Your task to perform on an android device: Search for flights from Buenos aires to Helsinki Image 0: 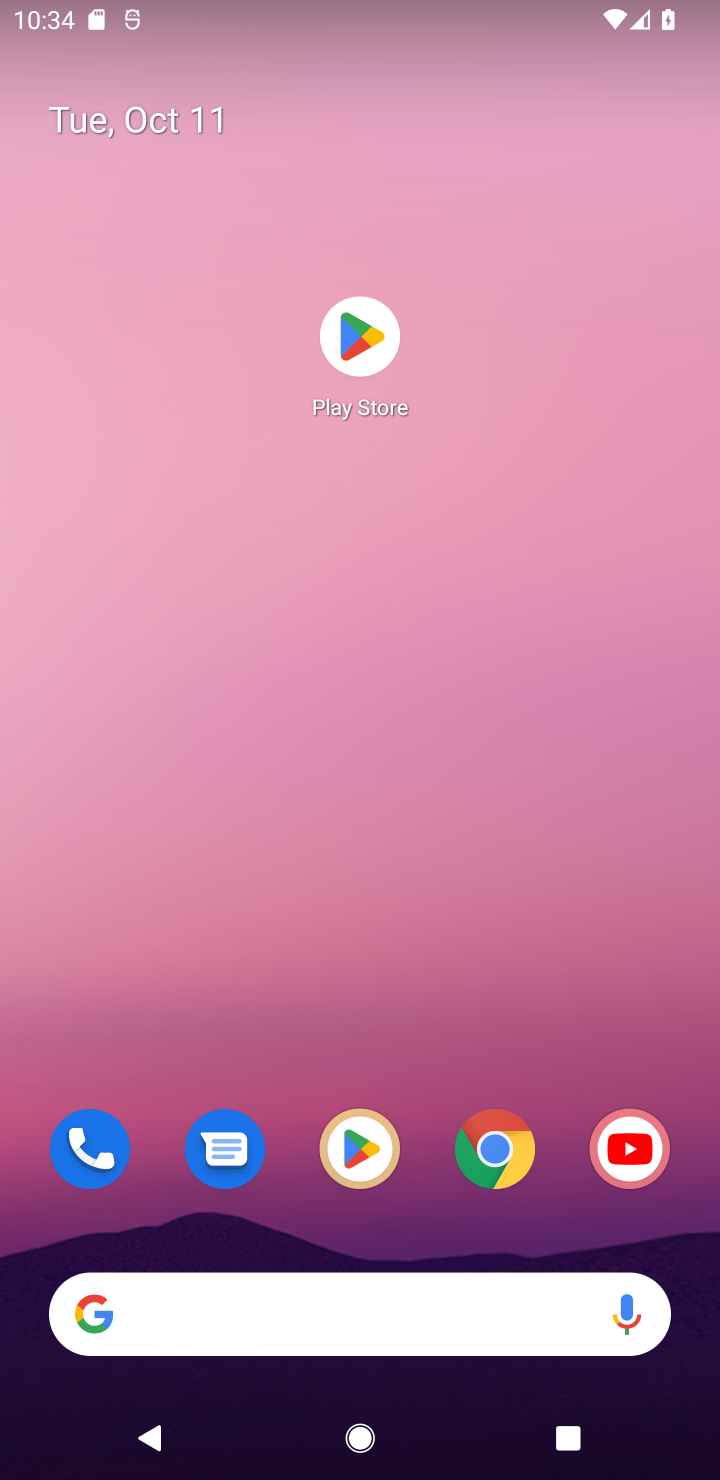
Step 0: click (323, 1303)
Your task to perform on an android device: Search for flights from Buenos aires to Helsinki Image 1: 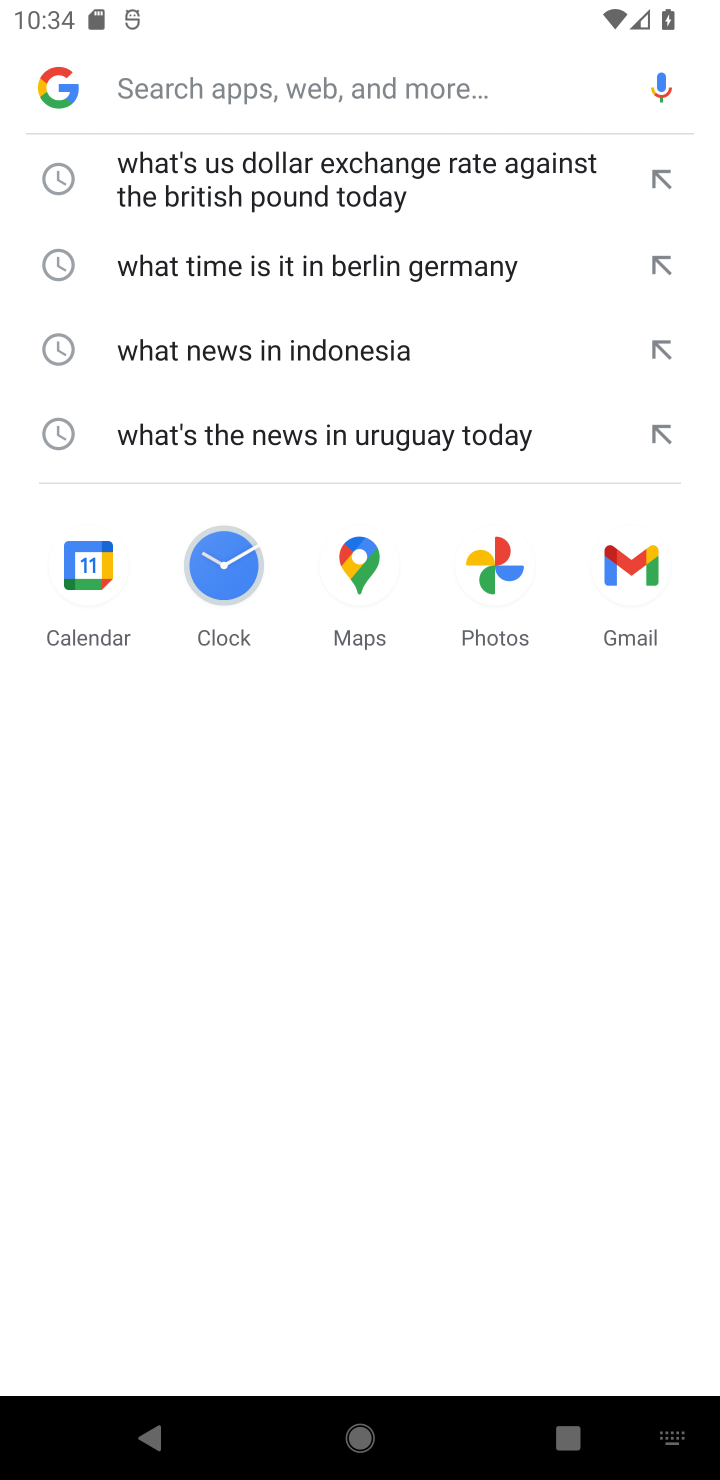
Step 1: type "Search for flights from Buenos aires to Helsinki"
Your task to perform on an android device: Search for flights from Buenos aires to Helsinki Image 2: 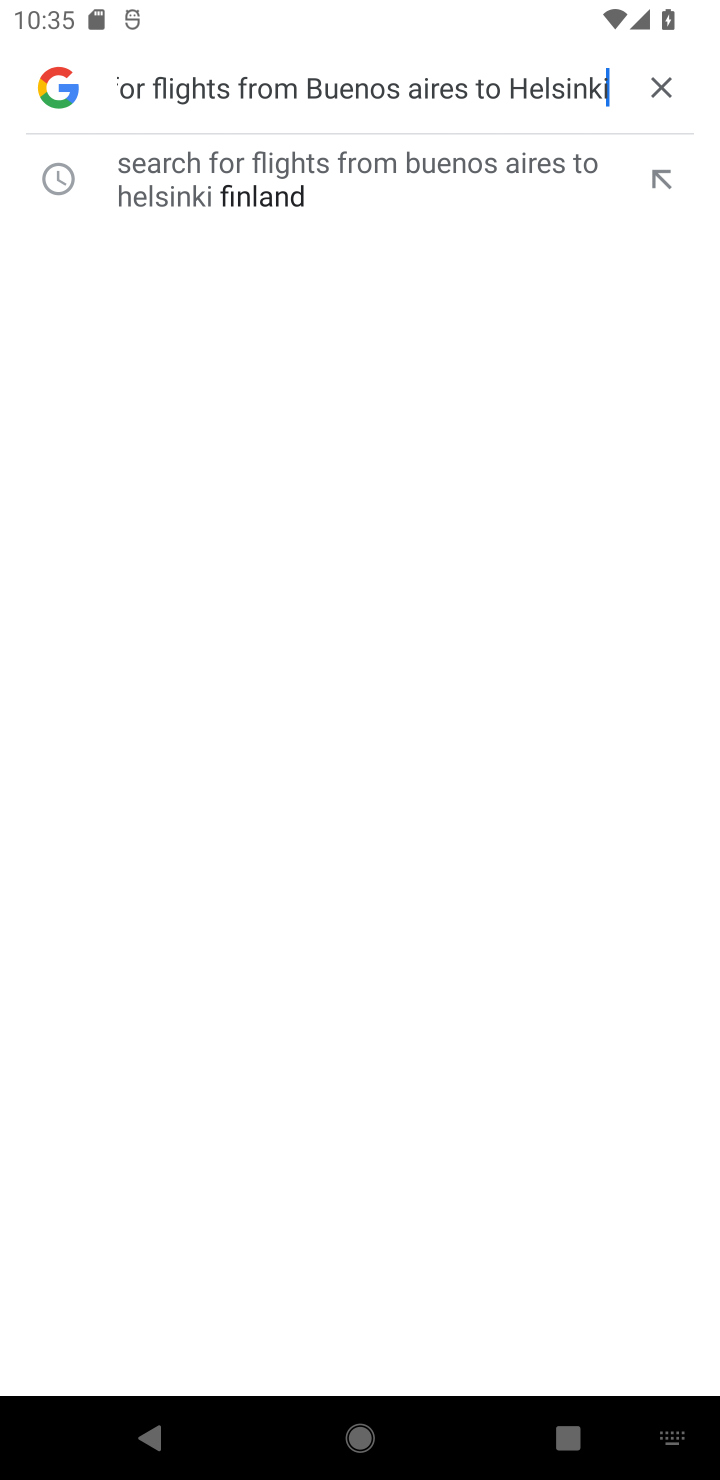
Step 2: click (262, 166)
Your task to perform on an android device: Search for flights from Buenos aires to Helsinki Image 3: 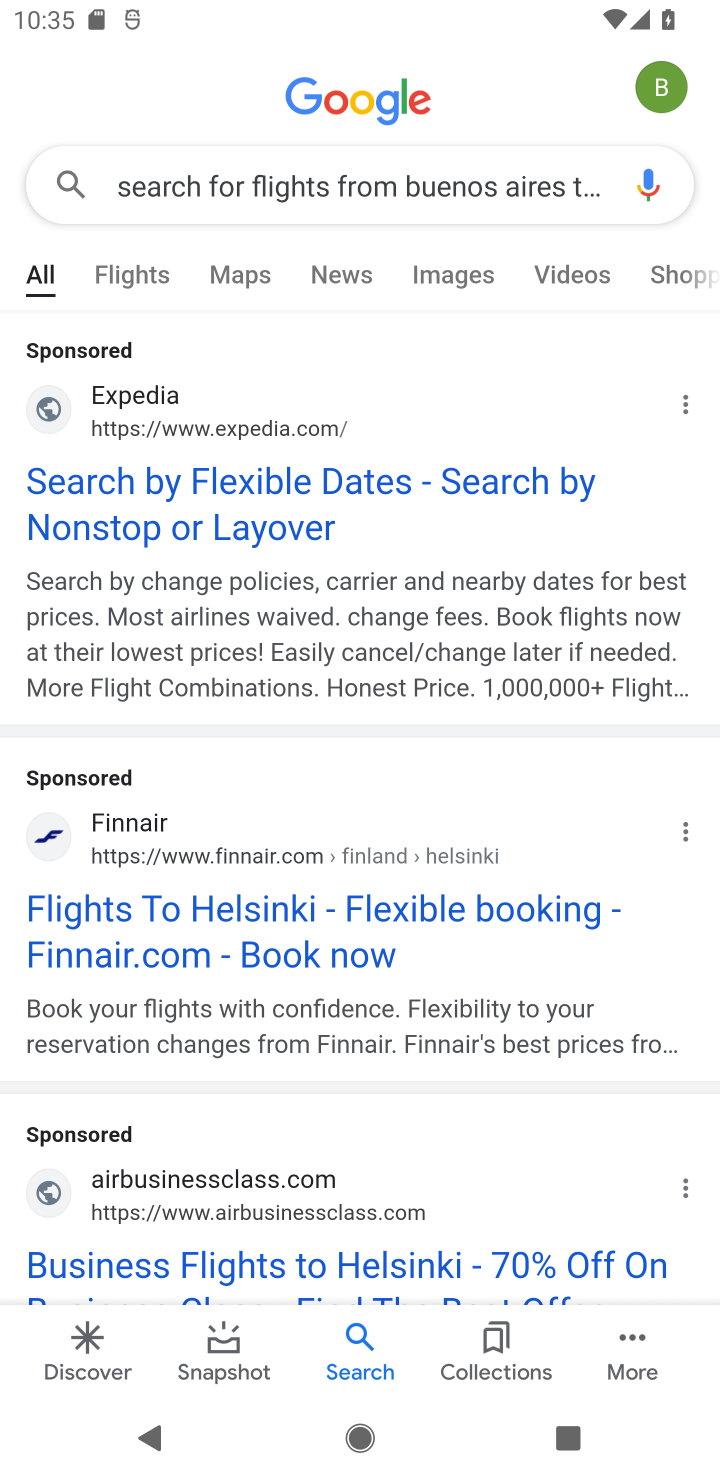
Step 3: click (280, 934)
Your task to perform on an android device: Search for flights from Buenos aires to Helsinki Image 4: 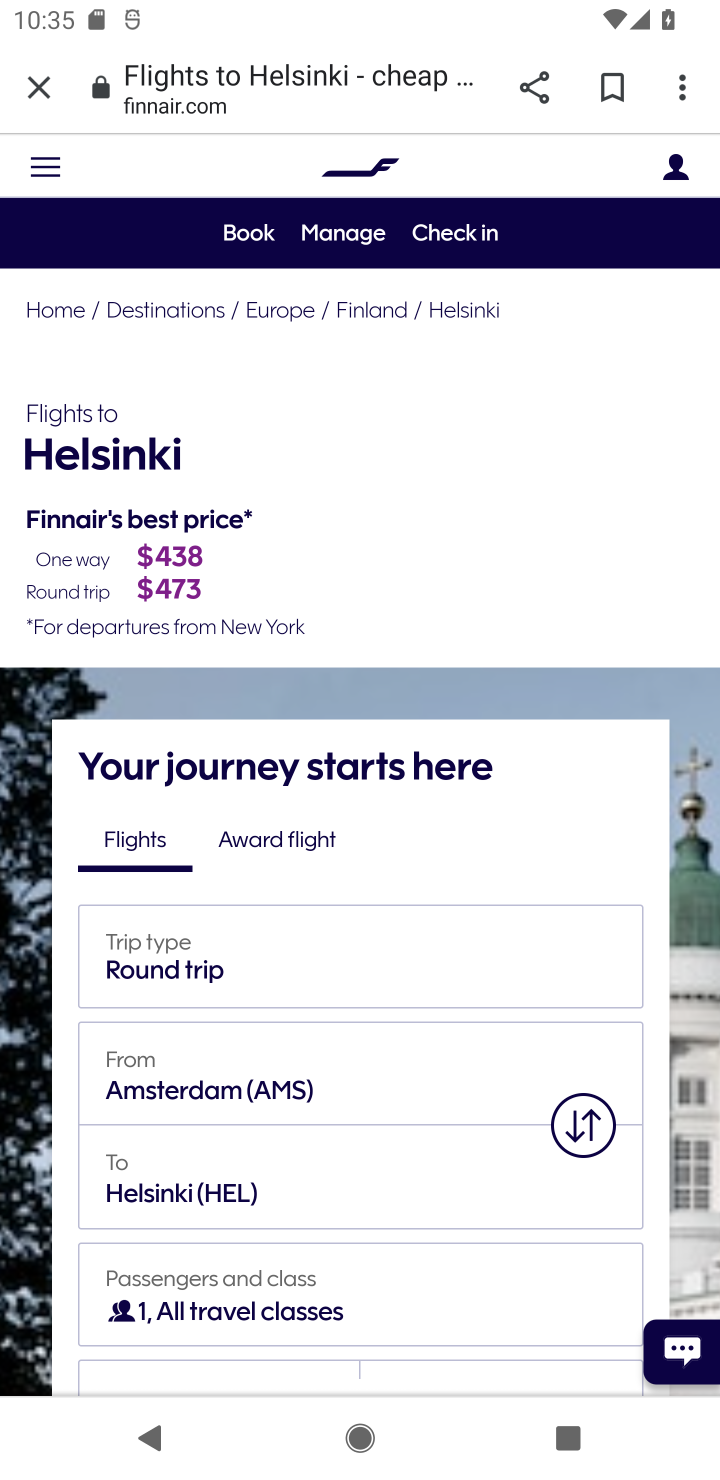
Step 4: drag from (395, 1166) to (453, 483)
Your task to perform on an android device: Search for flights from Buenos aires to Helsinki Image 5: 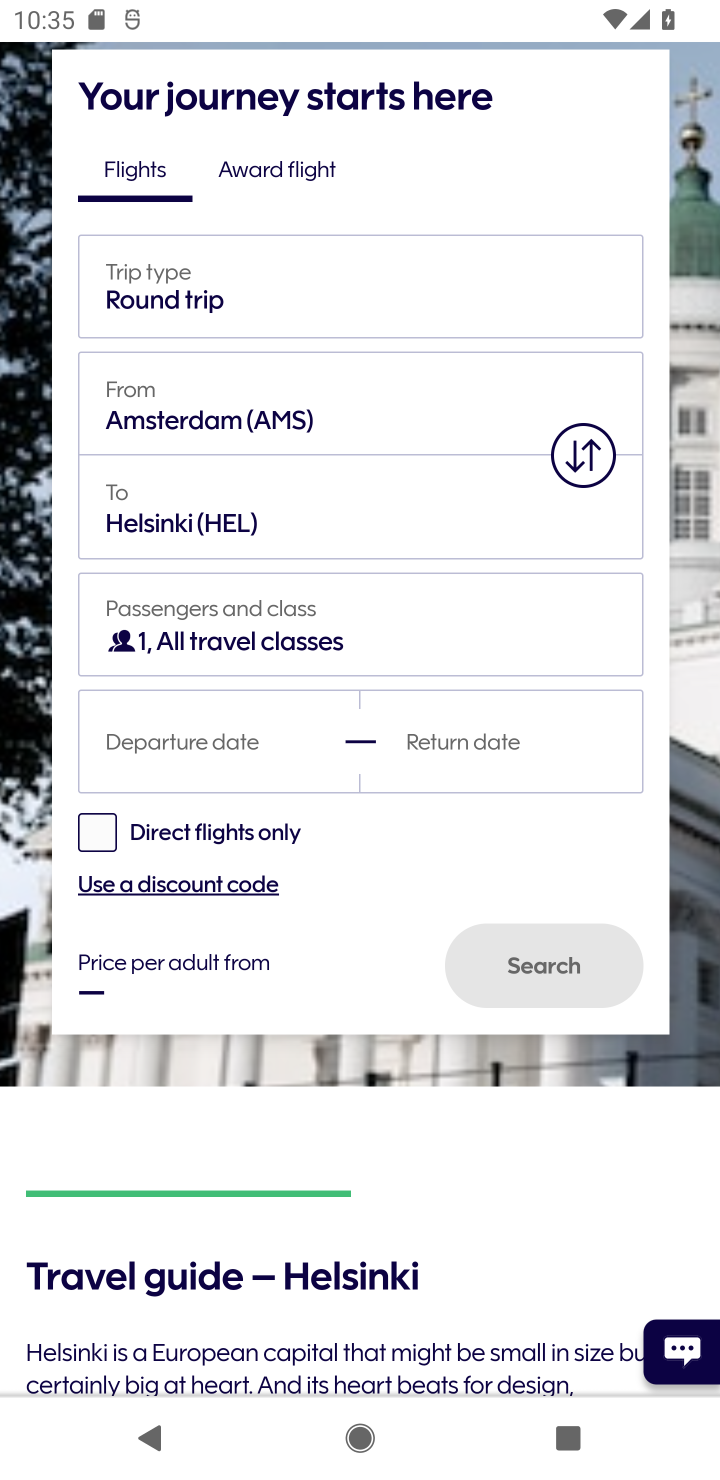
Step 5: drag from (329, 1116) to (338, 381)
Your task to perform on an android device: Search for flights from Buenos aires to Helsinki Image 6: 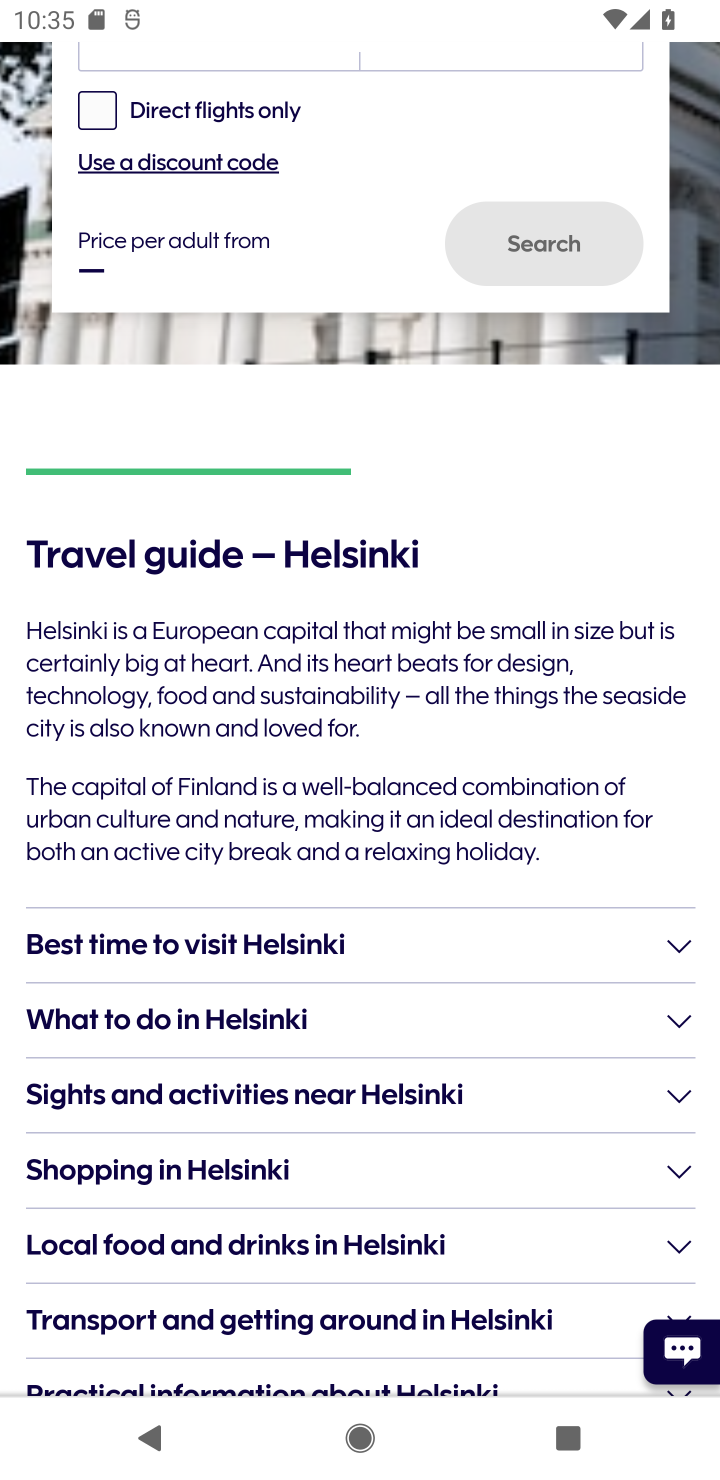
Step 6: drag from (365, 422) to (401, 288)
Your task to perform on an android device: Search for flights from Buenos aires to Helsinki Image 7: 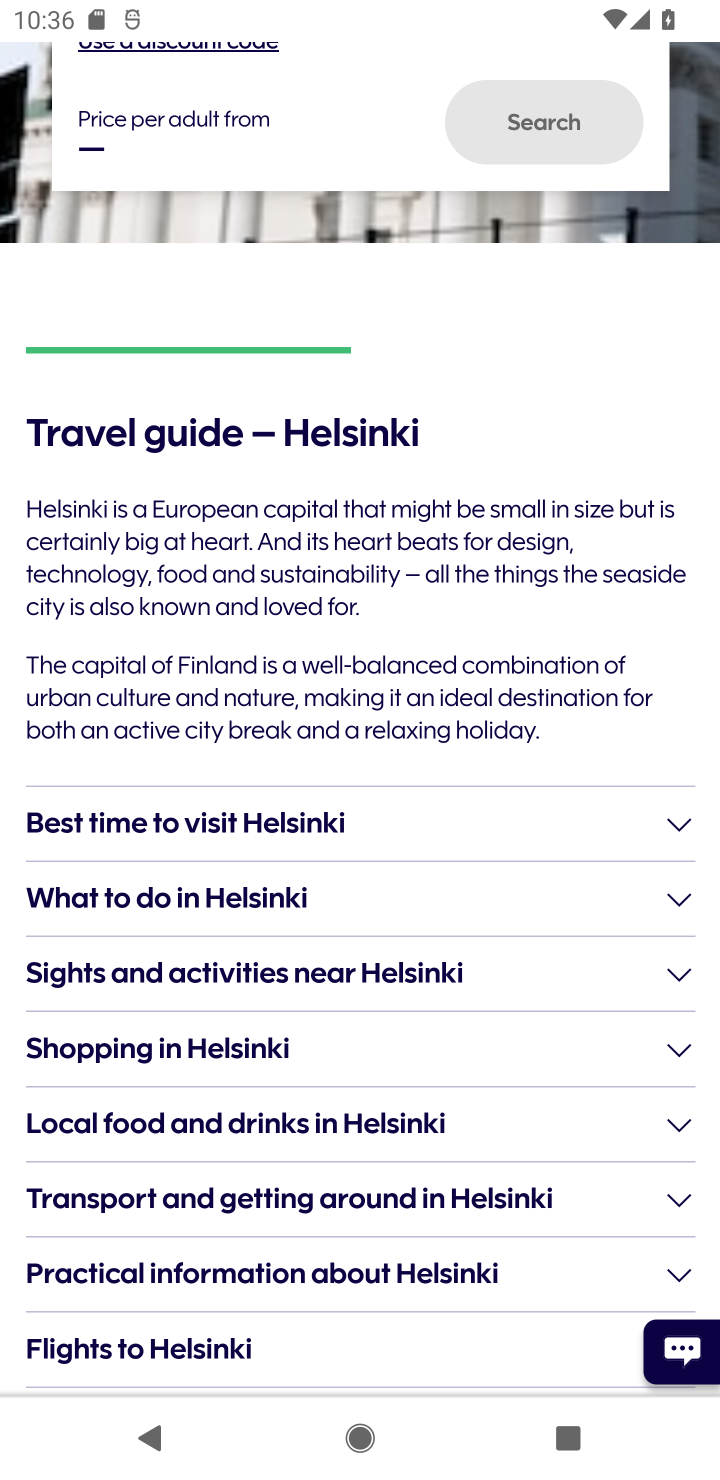
Step 7: drag from (374, 918) to (420, 764)
Your task to perform on an android device: Search for flights from Buenos aires to Helsinki Image 8: 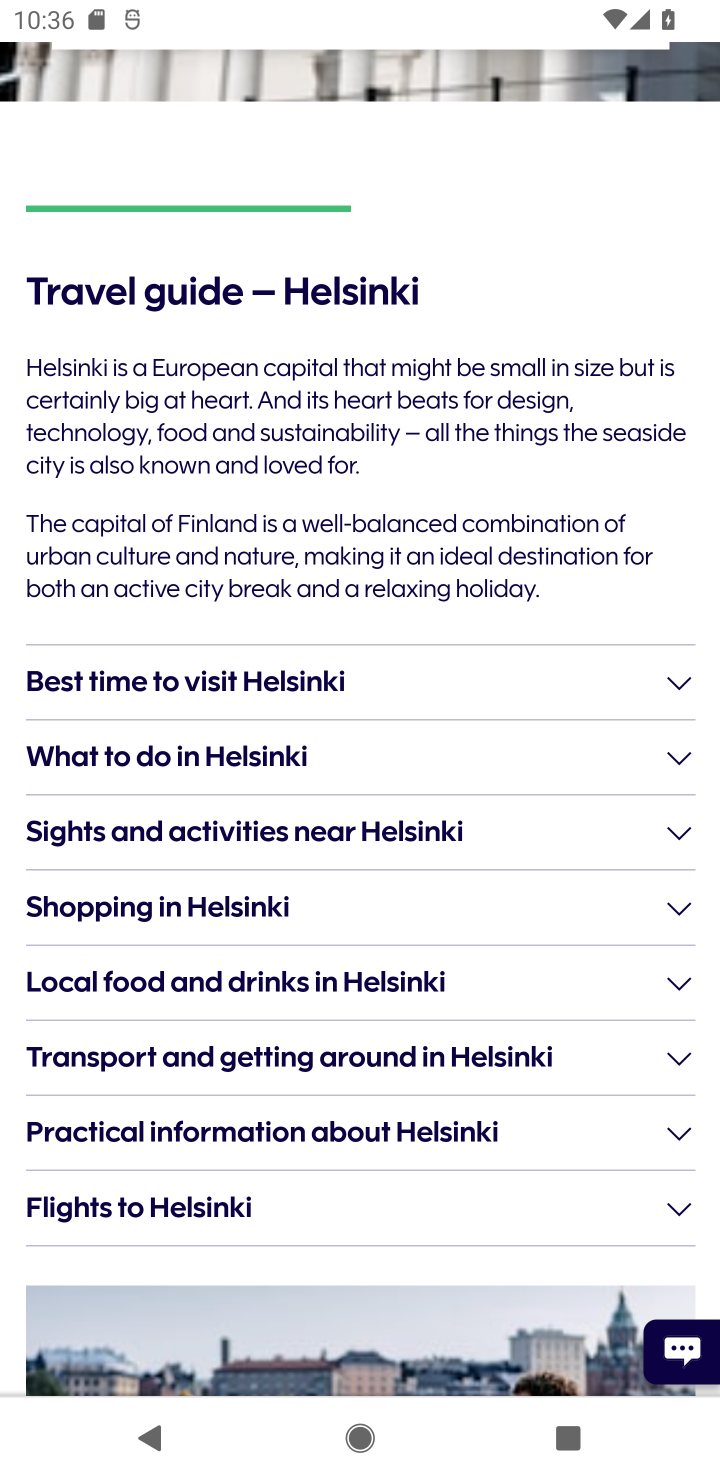
Step 8: drag from (450, 1105) to (450, 640)
Your task to perform on an android device: Search for flights from Buenos aires to Helsinki Image 9: 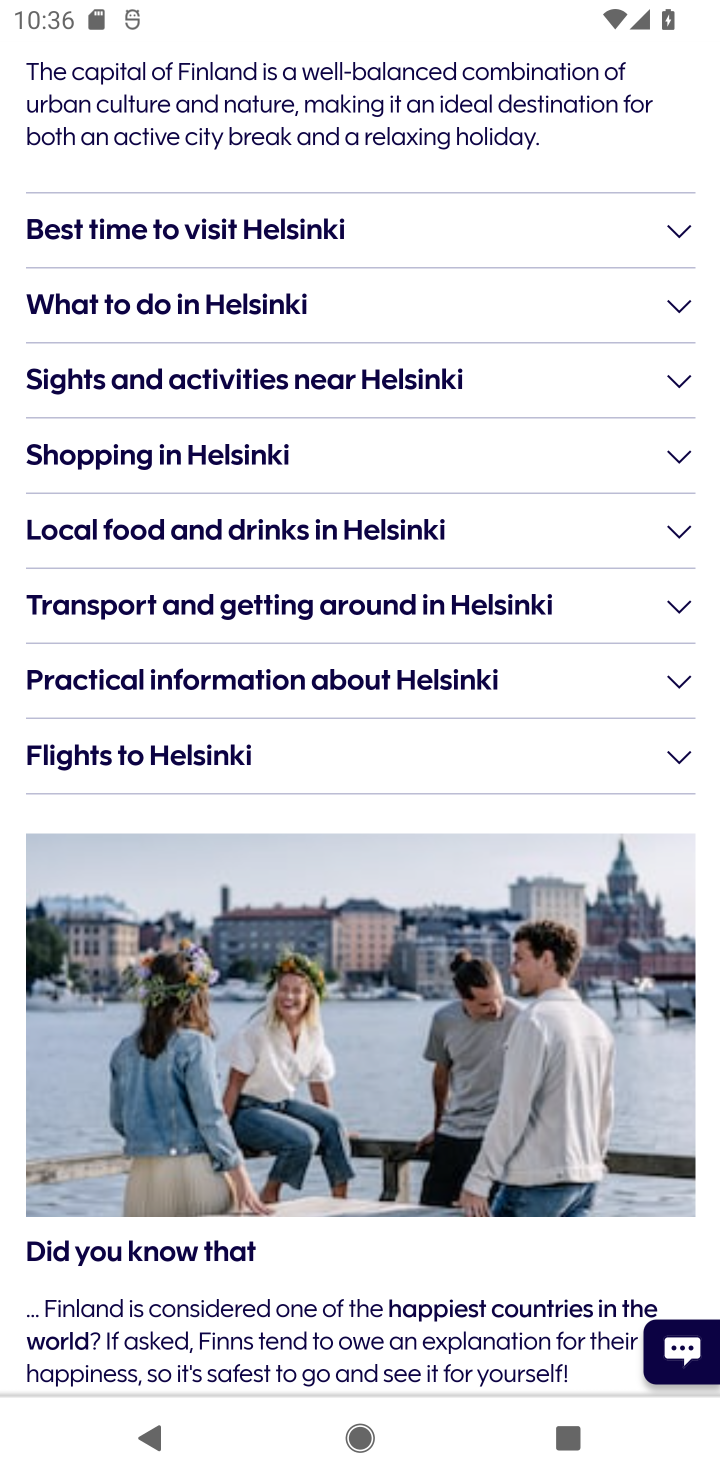
Step 9: drag from (295, 1271) to (347, 460)
Your task to perform on an android device: Search for flights from Buenos aires to Helsinki Image 10: 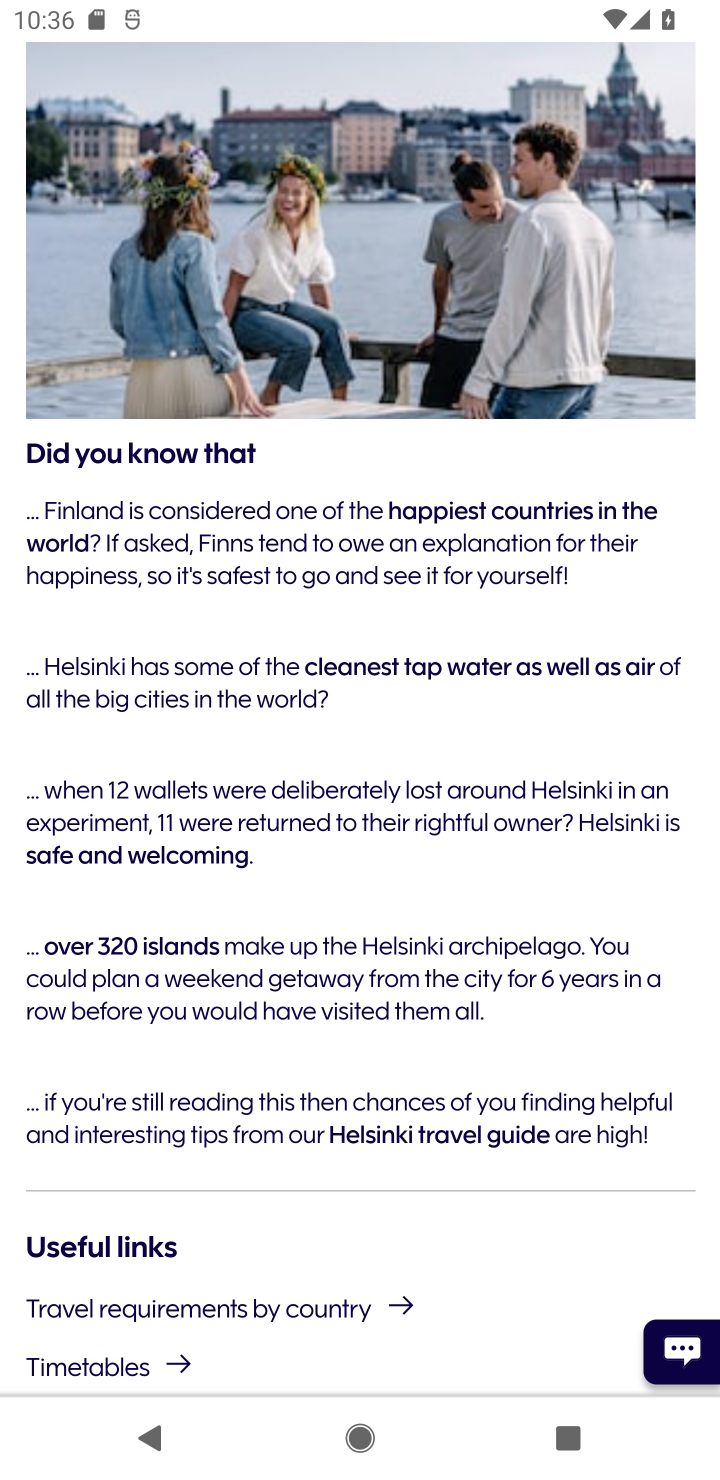
Step 10: press back button
Your task to perform on an android device: Search for flights from Buenos aires to Helsinki Image 11: 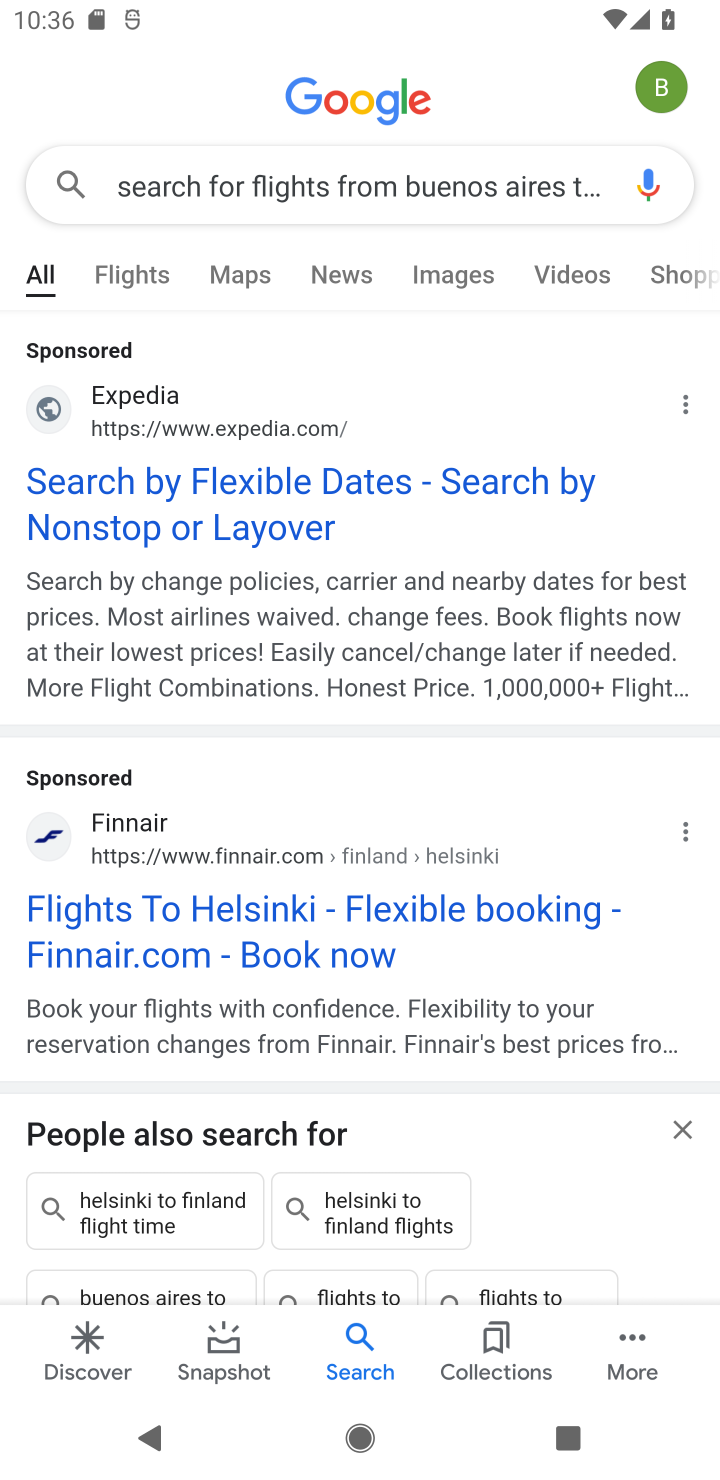
Step 11: drag from (532, 1145) to (561, 456)
Your task to perform on an android device: Search for flights from Buenos aires to Helsinki Image 12: 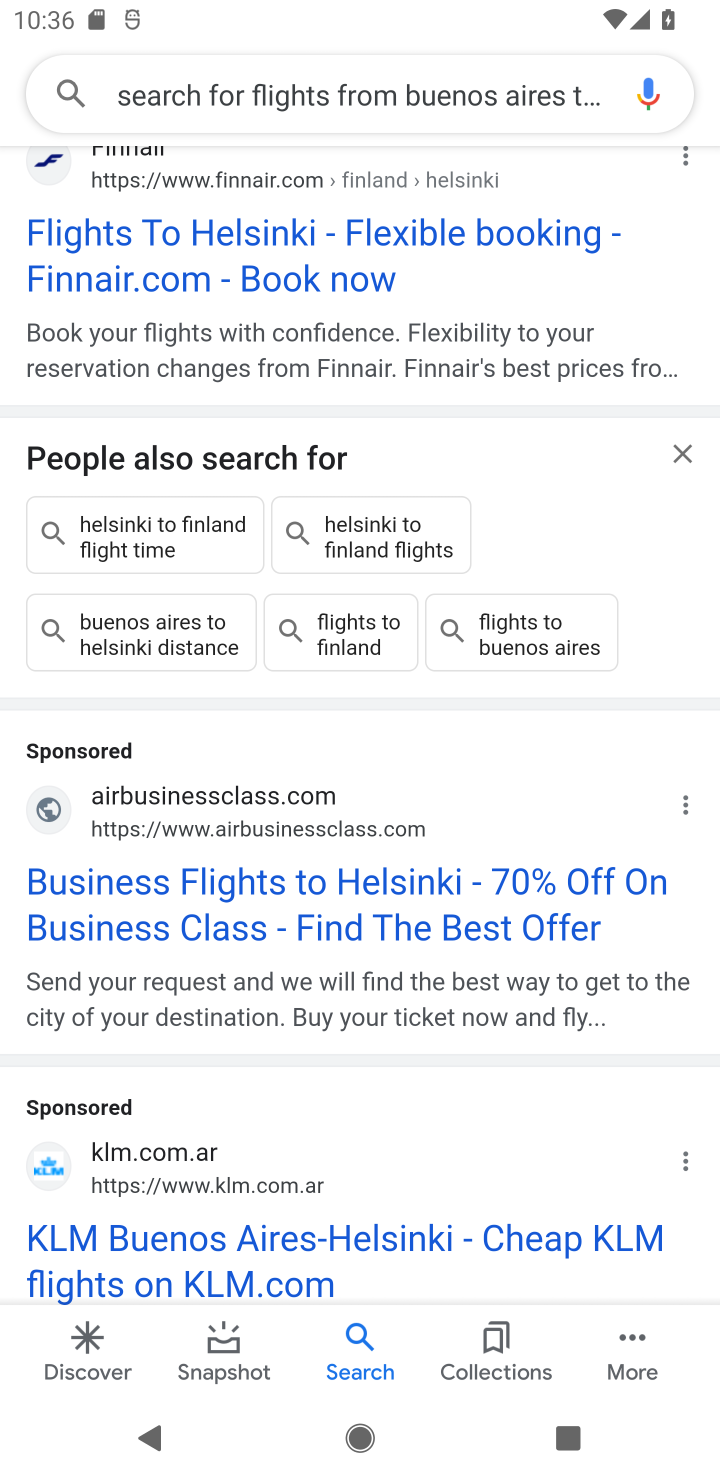
Step 12: click (171, 1230)
Your task to perform on an android device: Search for flights from Buenos aires to Helsinki Image 13: 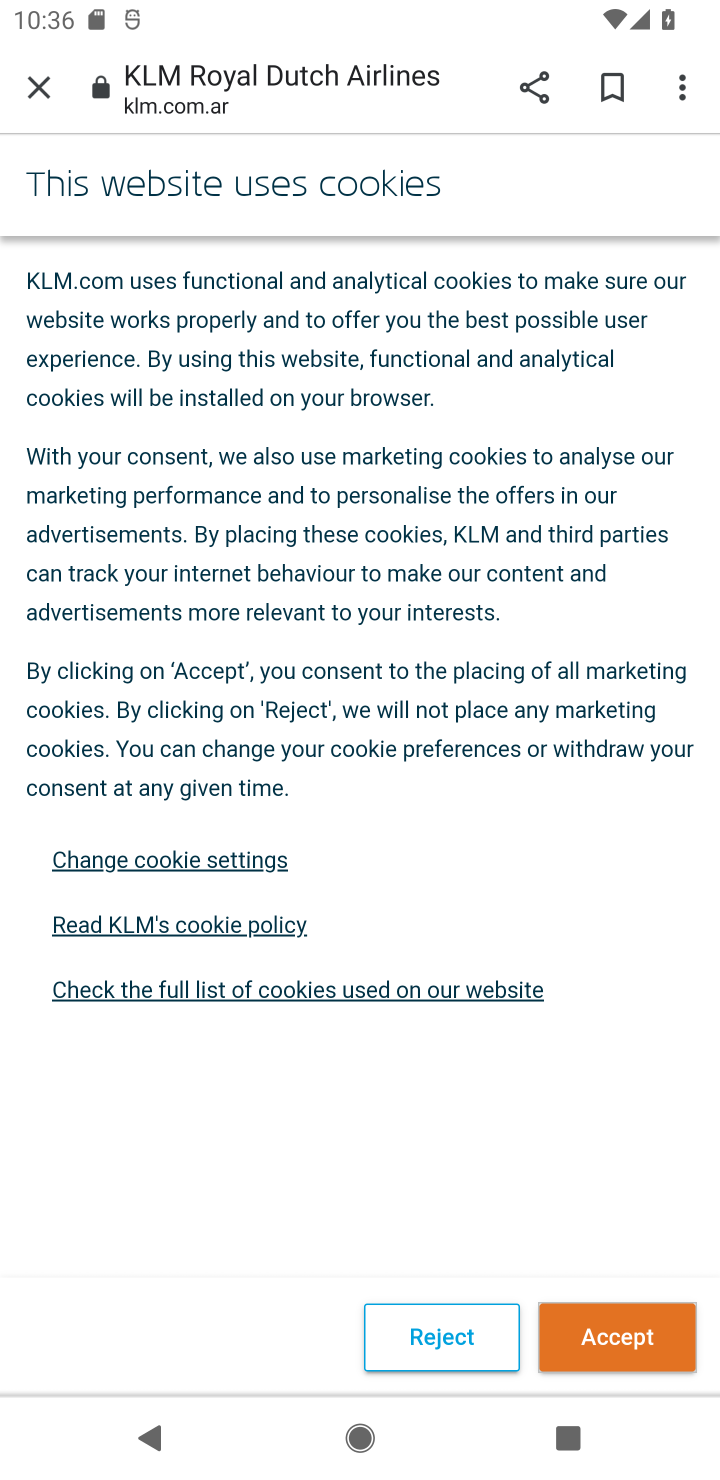
Step 13: click (589, 1317)
Your task to perform on an android device: Search for flights from Buenos aires to Helsinki Image 14: 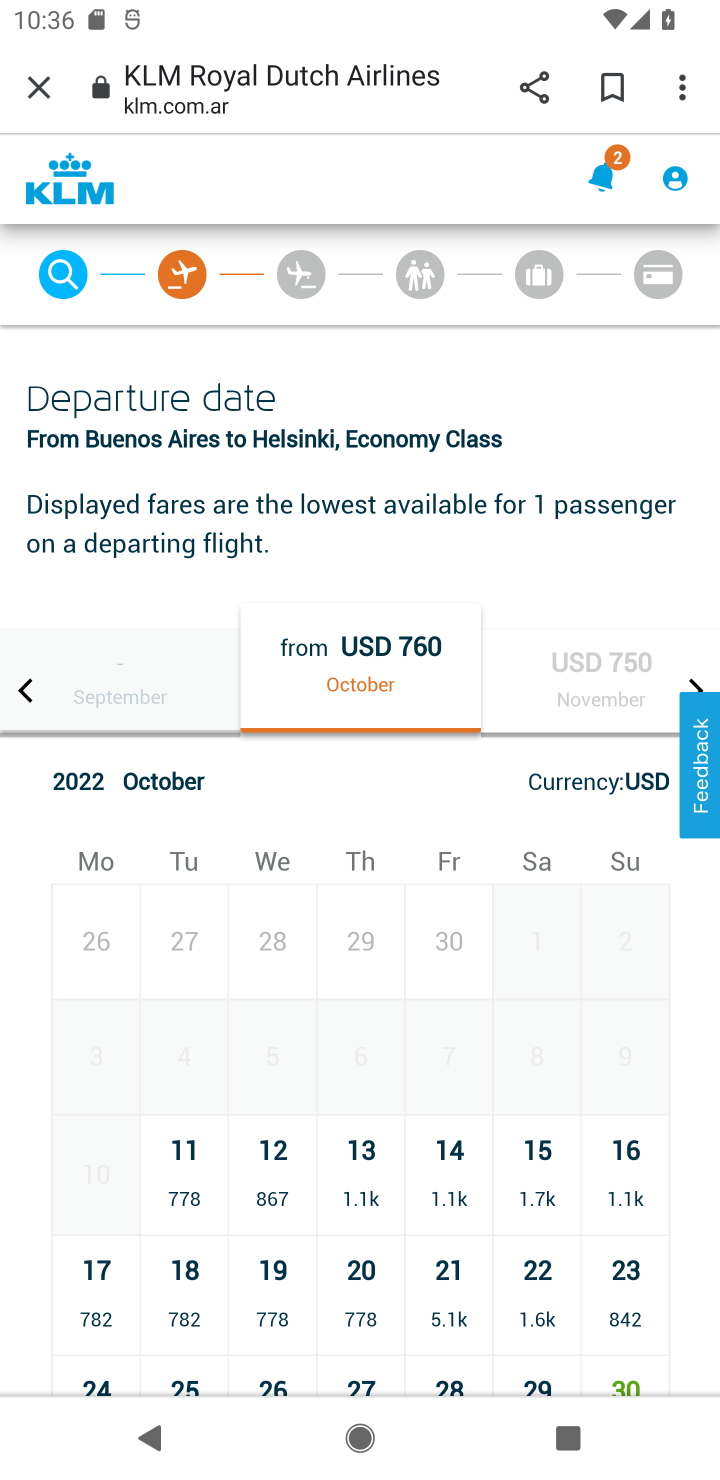
Step 14: task complete